Your task to perform on an android device: change notifications settings Image 0: 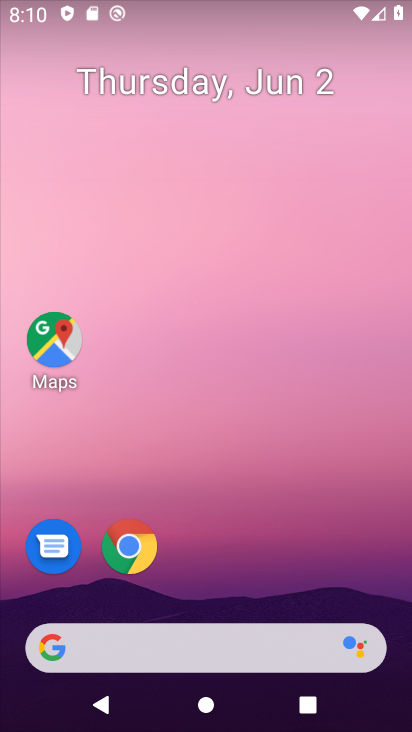
Step 0: drag from (281, 711) to (209, 46)
Your task to perform on an android device: change notifications settings Image 1: 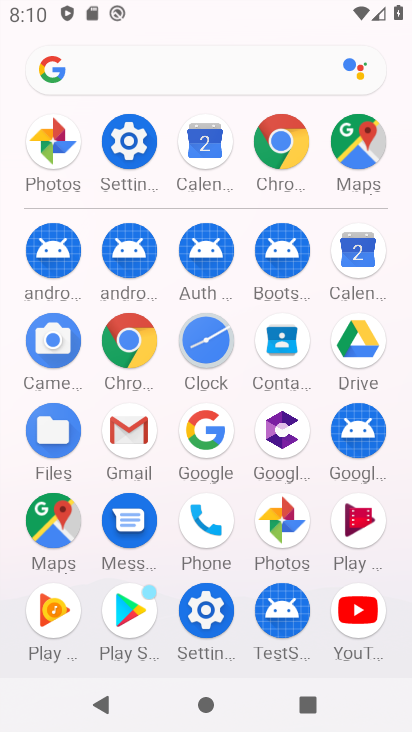
Step 1: click (139, 130)
Your task to perform on an android device: change notifications settings Image 2: 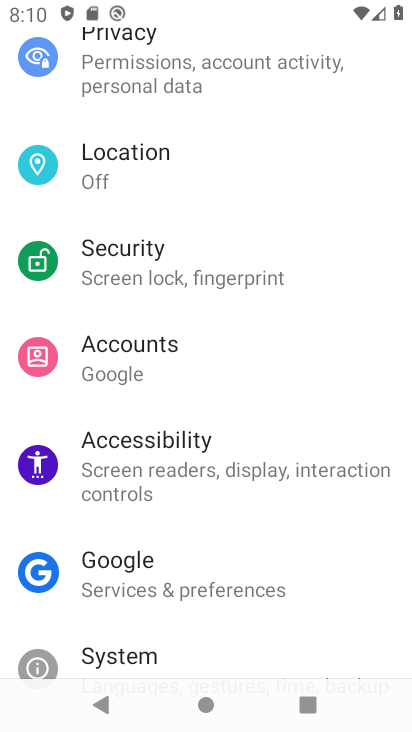
Step 2: drag from (199, 173) to (209, 506)
Your task to perform on an android device: change notifications settings Image 3: 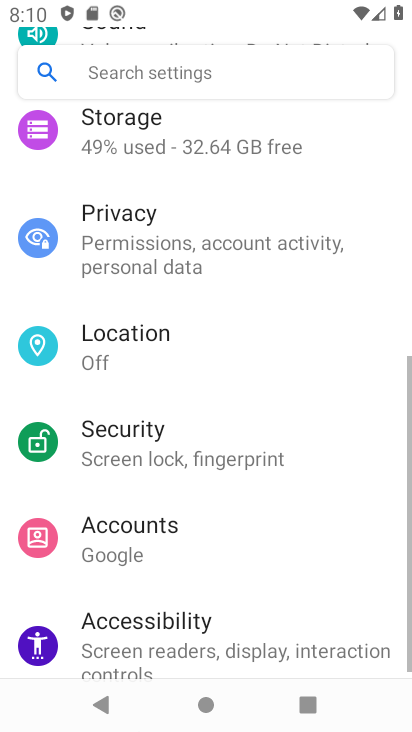
Step 3: drag from (209, 188) to (218, 362)
Your task to perform on an android device: change notifications settings Image 4: 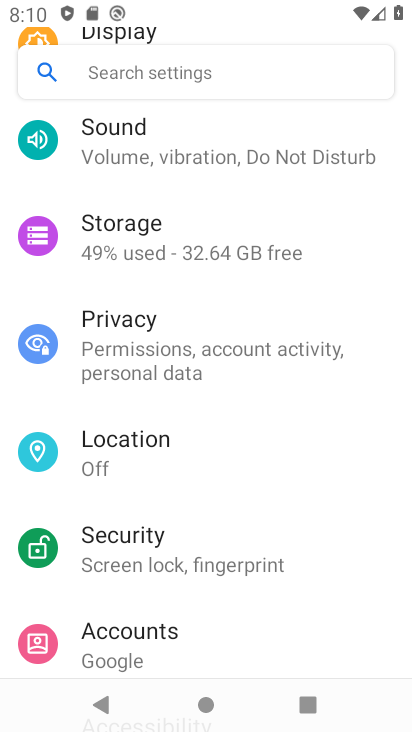
Step 4: drag from (219, 251) to (256, 480)
Your task to perform on an android device: change notifications settings Image 5: 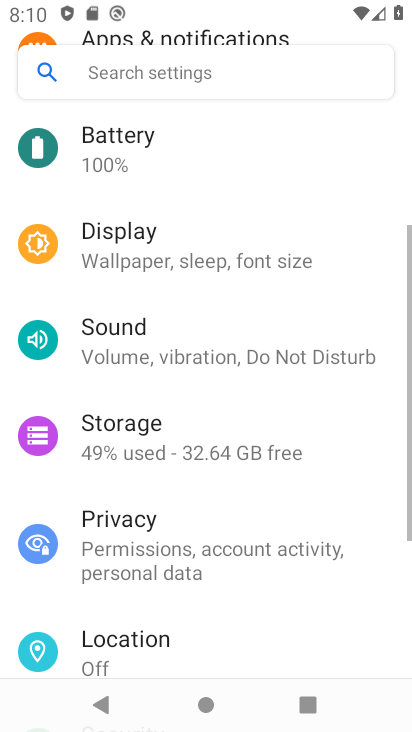
Step 5: drag from (216, 271) to (269, 515)
Your task to perform on an android device: change notifications settings Image 6: 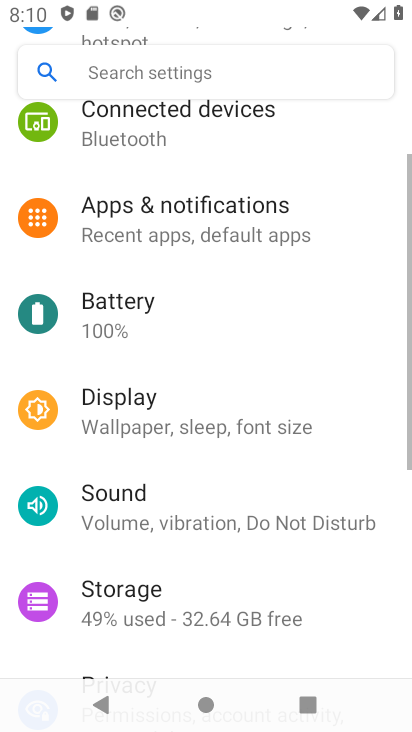
Step 6: drag from (239, 295) to (270, 504)
Your task to perform on an android device: change notifications settings Image 7: 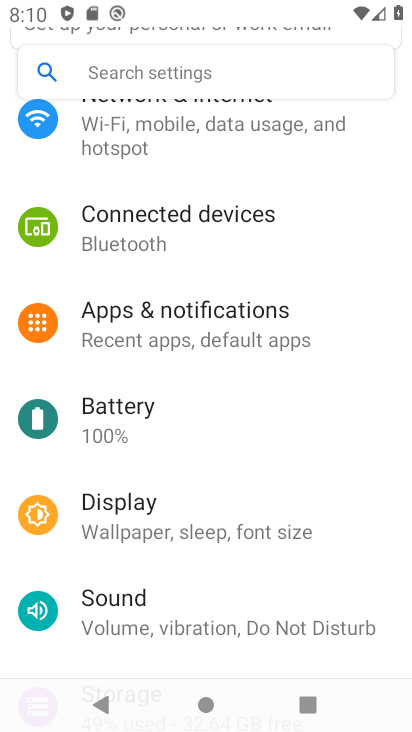
Step 7: click (194, 326)
Your task to perform on an android device: change notifications settings Image 8: 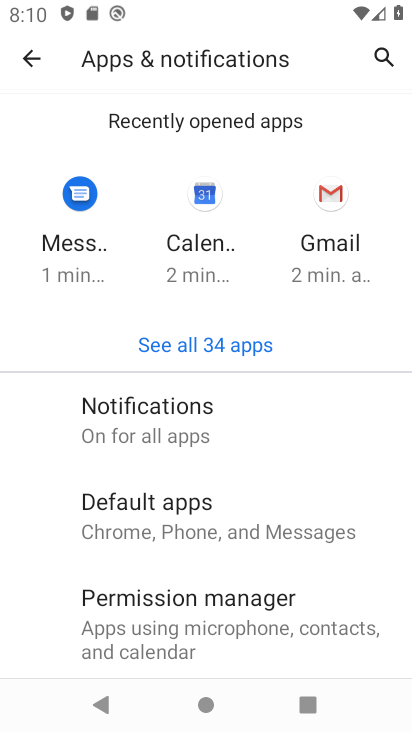
Step 8: click (176, 419)
Your task to perform on an android device: change notifications settings Image 9: 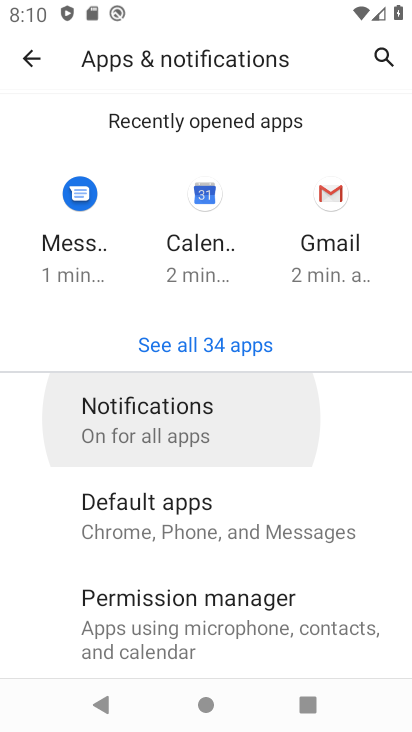
Step 9: click (176, 419)
Your task to perform on an android device: change notifications settings Image 10: 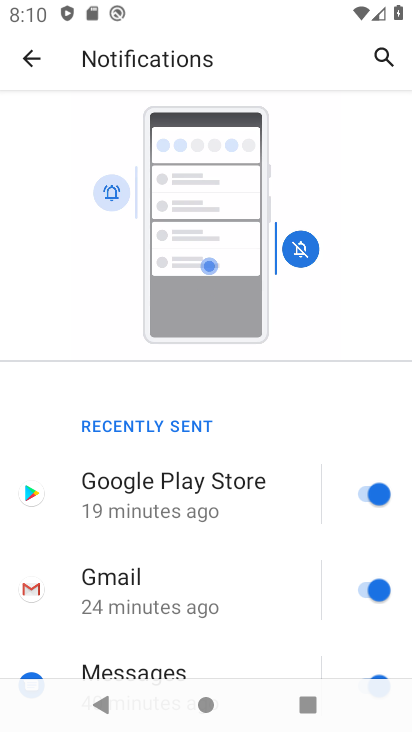
Step 10: drag from (218, 570) to (201, 30)
Your task to perform on an android device: change notifications settings Image 11: 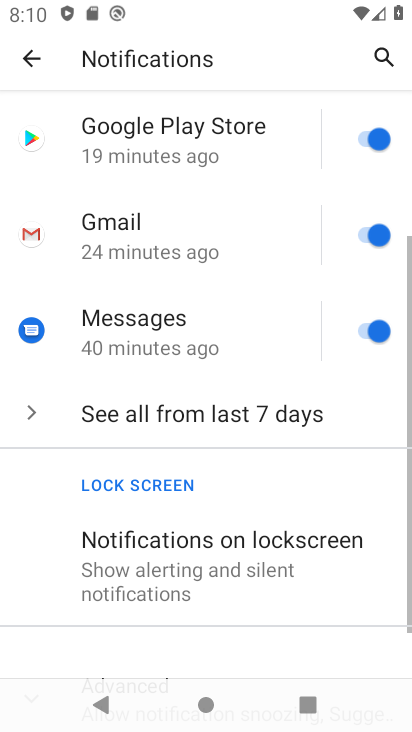
Step 11: drag from (230, 482) to (170, 74)
Your task to perform on an android device: change notifications settings Image 12: 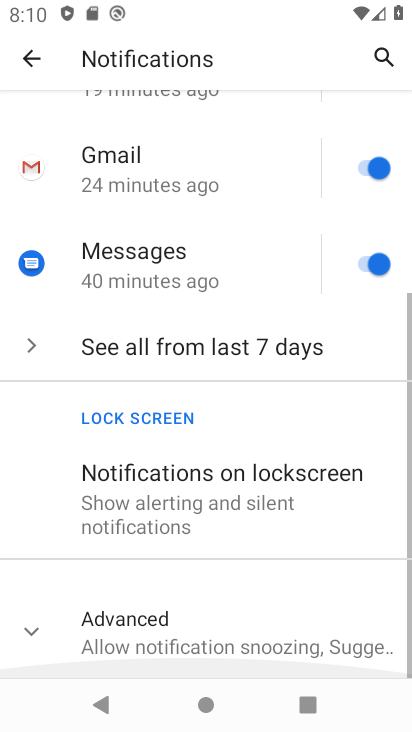
Step 12: drag from (181, 519) to (178, 226)
Your task to perform on an android device: change notifications settings Image 13: 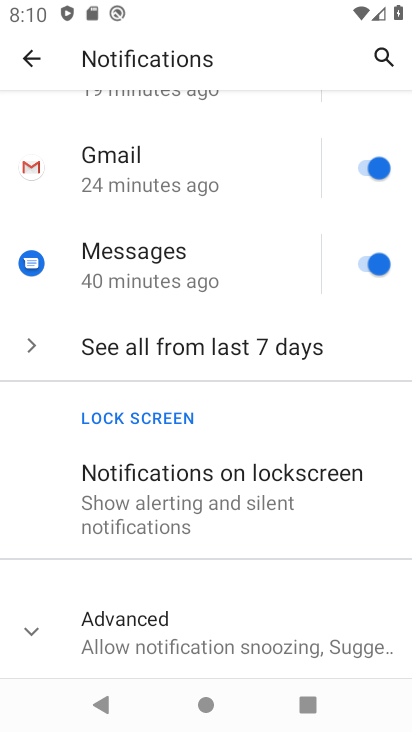
Step 13: drag from (279, 613) to (285, 198)
Your task to perform on an android device: change notifications settings Image 14: 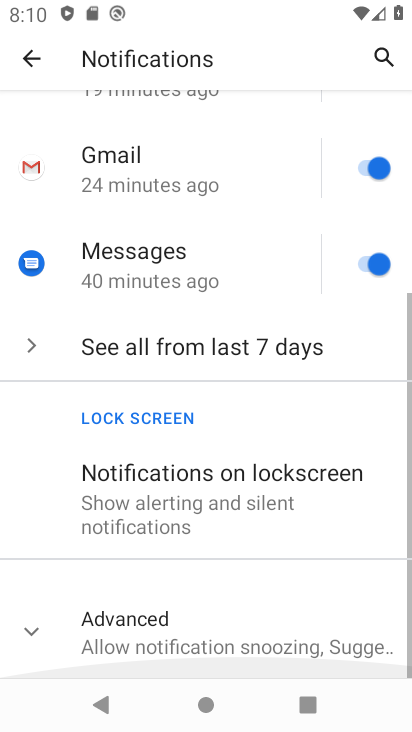
Step 14: drag from (326, 462) to (300, 299)
Your task to perform on an android device: change notifications settings Image 15: 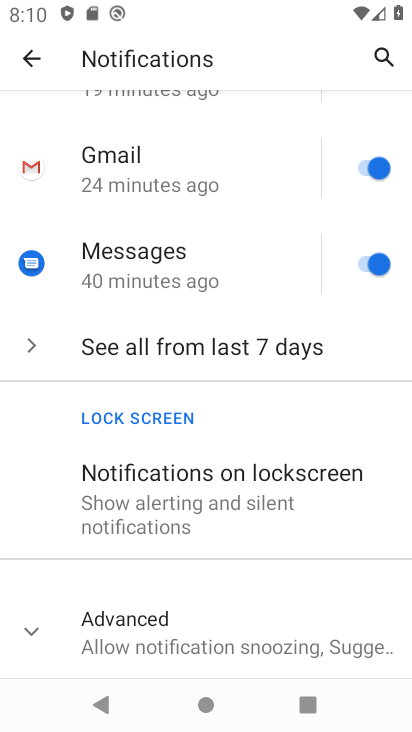
Step 15: click (381, 171)
Your task to perform on an android device: change notifications settings Image 16: 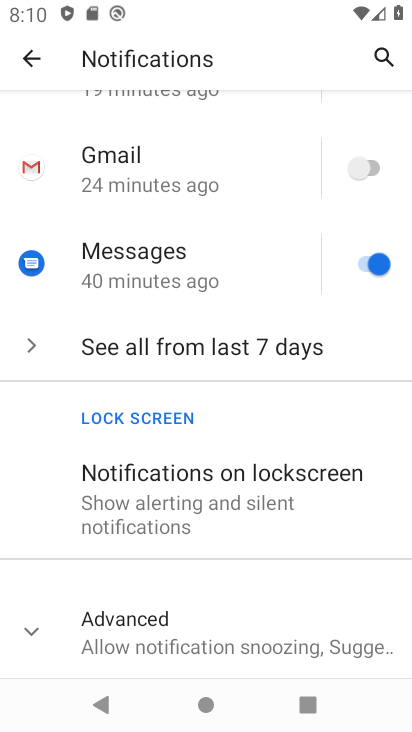
Step 16: click (376, 271)
Your task to perform on an android device: change notifications settings Image 17: 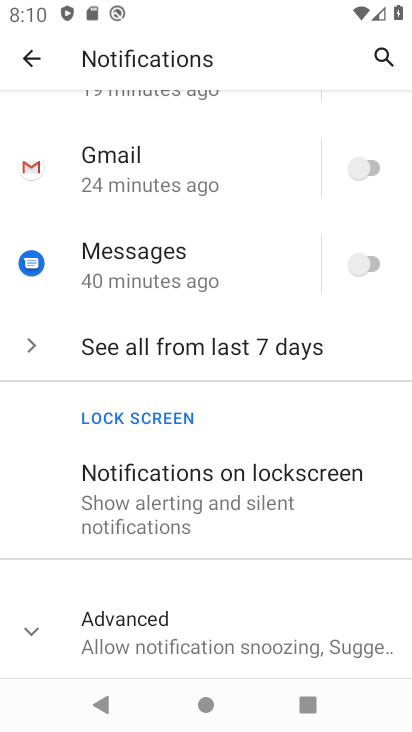
Step 17: drag from (291, 195) to (344, 384)
Your task to perform on an android device: change notifications settings Image 18: 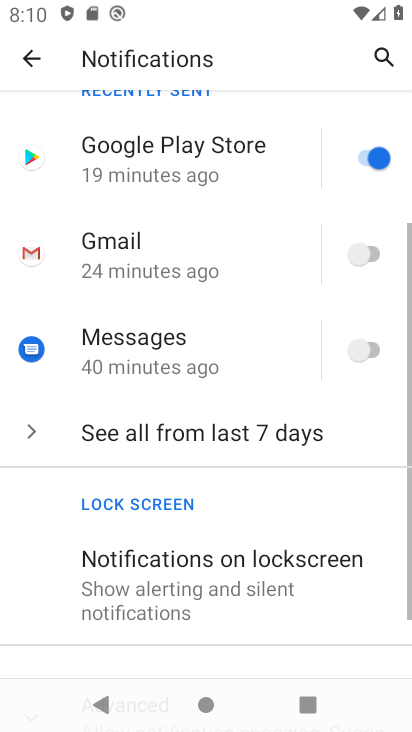
Step 18: drag from (334, 221) to (342, 452)
Your task to perform on an android device: change notifications settings Image 19: 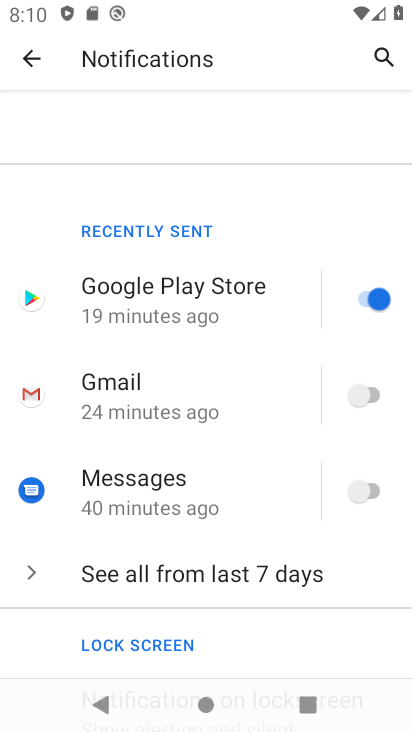
Step 19: click (370, 305)
Your task to perform on an android device: change notifications settings Image 20: 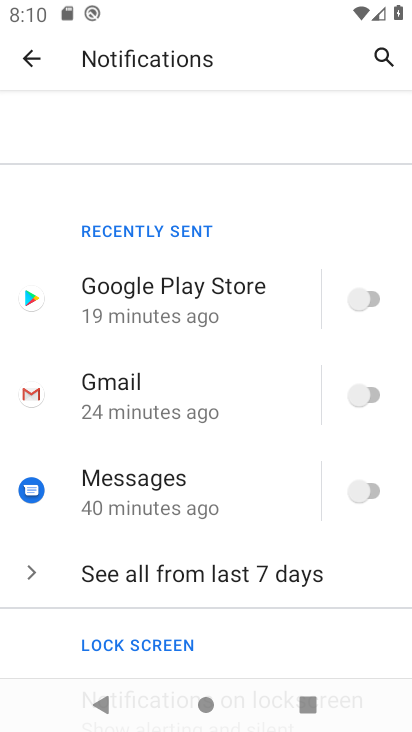
Step 20: task complete